Your task to perform on an android device: Open Google Chrome and click the shortcut for Amazon.com Image 0: 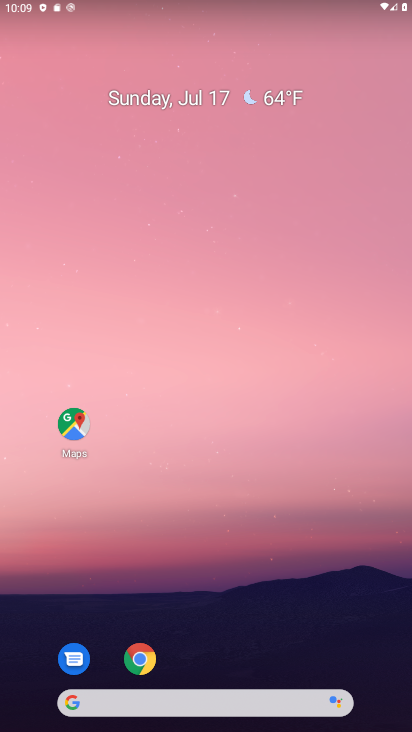
Step 0: click (134, 669)
Your task to perform on an android device: Open Google Chrome and click the shortcut for Amazon.com Image 1: 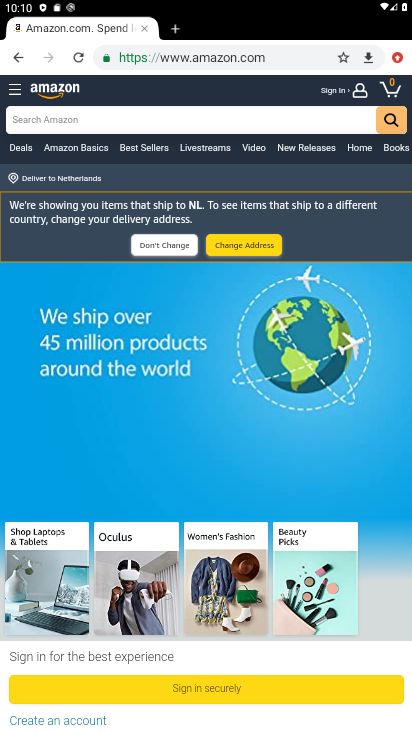
Step 1: click (172, 29)
Your task to perform on an android device: Open Google Chrome and click the shortcut for Amazon.com Image 2: 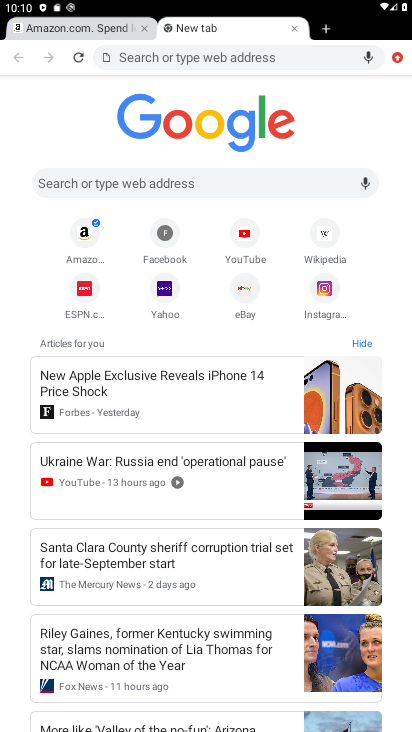
Step 2: click (84, 230)
Your task to perform on an android device: Open Google Chrome and click the shortcut for Amazon.com Image 3: 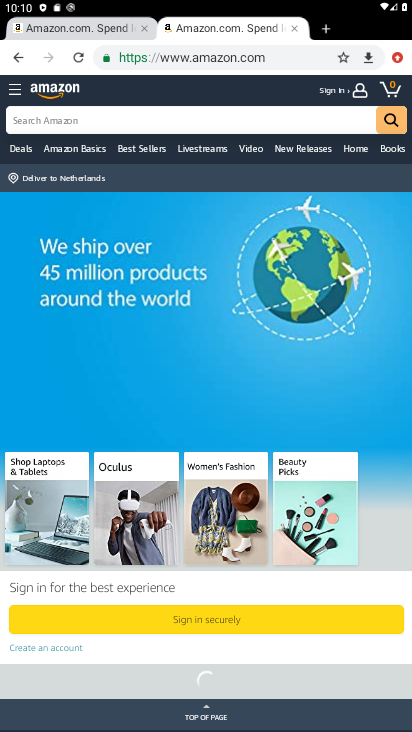
Step 3: task complete